Your task to perform on an android device: When is my next meeting? Image 0: 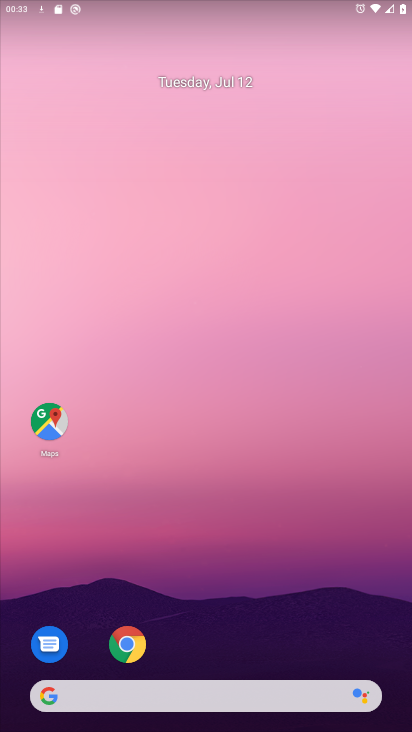
Step 0: drag from (204, 646) to (225, 167)
Your task to perform on an android device: When is my next meeting? Image 1: 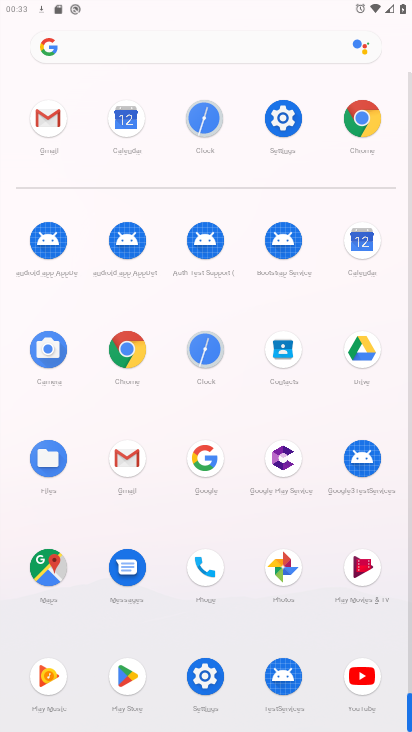
Step 1: click (357, 229)
Your task to perform on an android device: When is my next meeting? Image 2: 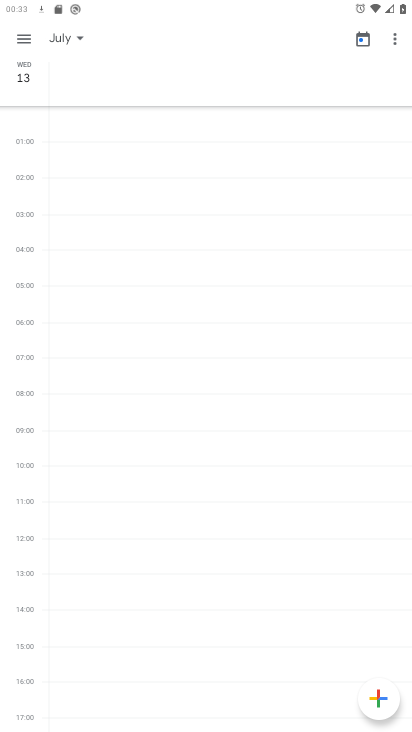
Step 2: click (20, 37)
Your task to perform on an android device: When is my next meeting? Image 3: 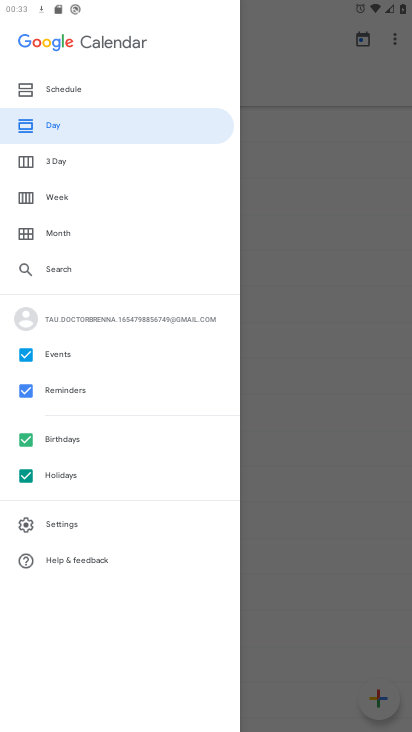
Step 3: click (69, 219)
Your task to perform on an android device: When is my next meeting? Image 4: 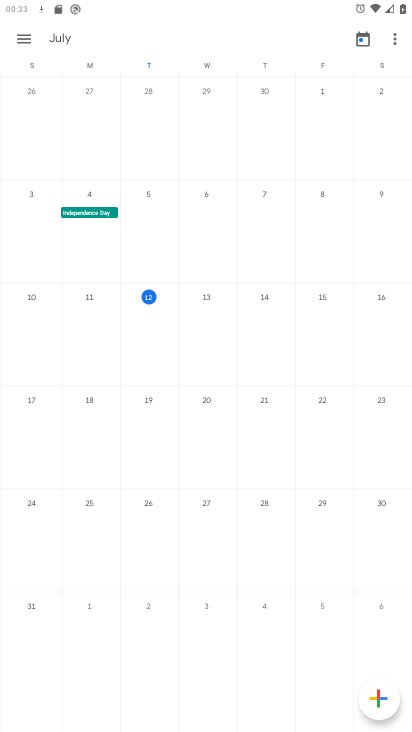
Step 4: task complete